Your task to perform on an android device: Go to wifi settings Image 0: 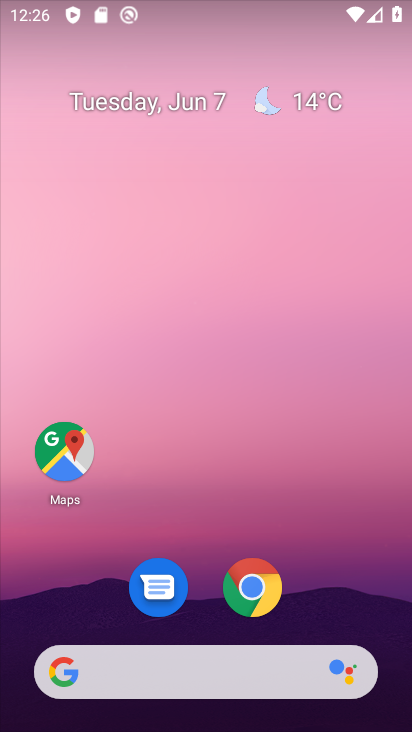
Step 0: drag from (198, 616) to (409, 158)
Your task to perform on an android device: Go to wifi settings Image 1: 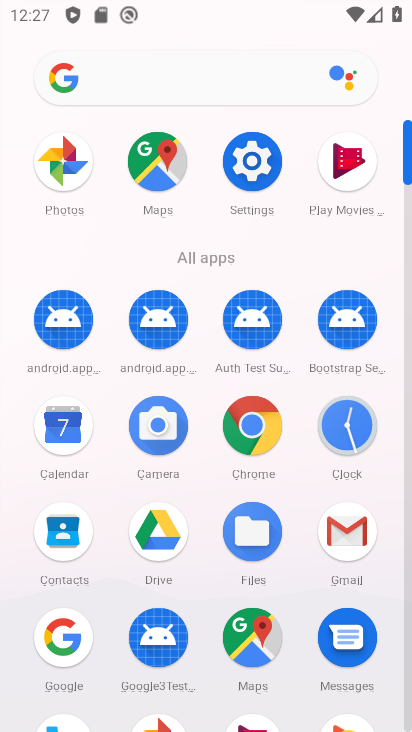
Step 1: click (263, 173)
Your task to perform on an android device: Go to wifi settings Image 2: 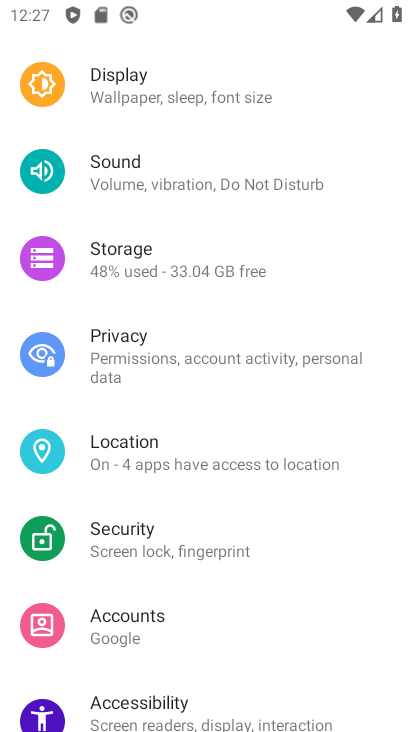
Step 2: drag from (210, 288) to (234, 715)
Your task to perform on an android device: Go to wifi settings Image 3: 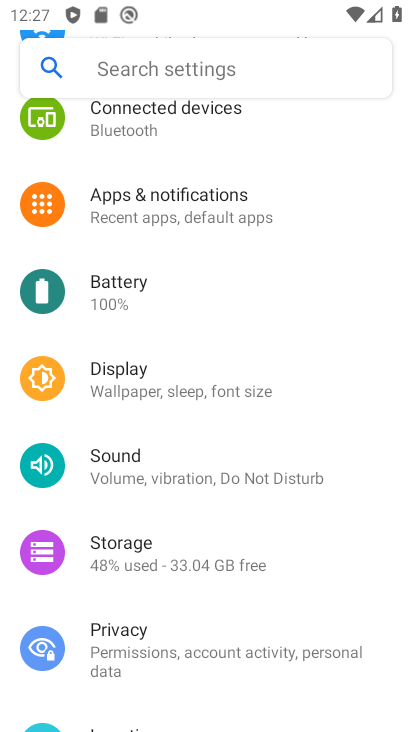
Step 3: drag from (231, 334) to (205, 676)
Your task to perform on an android device: Go to wifi settings Image 4: 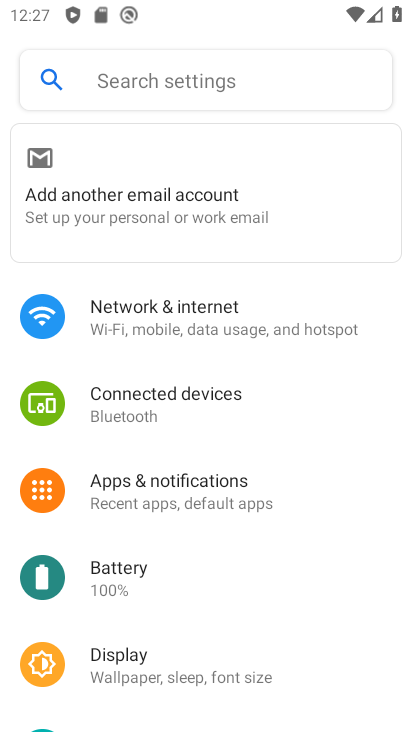
Step 4: click (198, 327)
Your task to perform on an android device: Go to wifi settings Image 5: 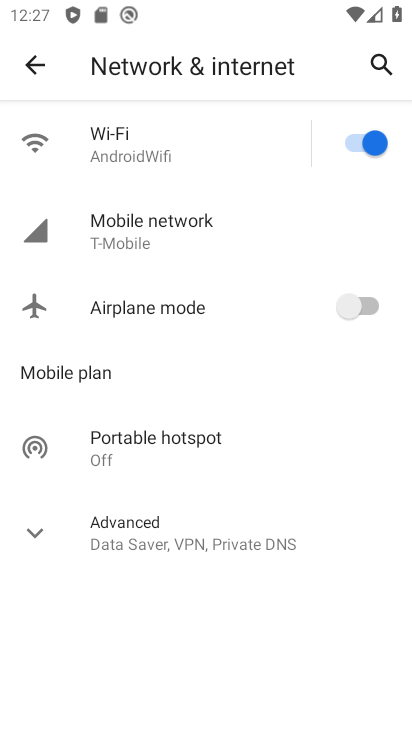
Step 5: click (174, 173)
Your task to perform on an android device: Go to wifi settings Image 6: 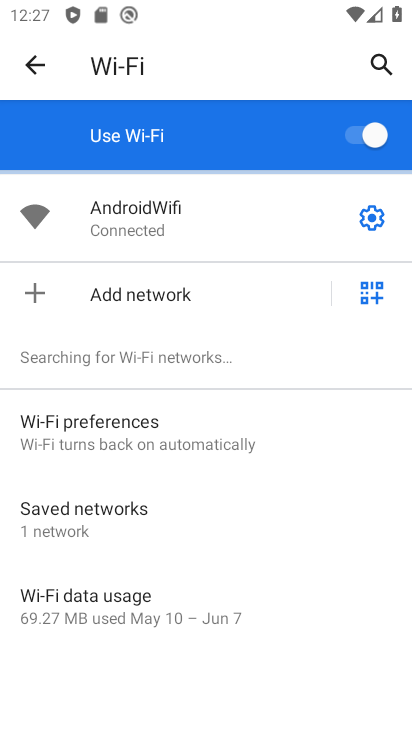
Step 6: task complete